Your task to perform on an android device: turn on airplane mode Image 0: 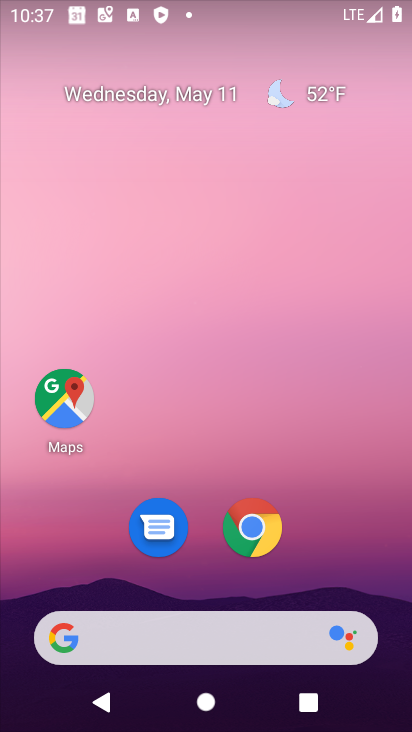
Step 0: drag from (330, 534) to (364, 49)
Your task to perform on an android device: turn on airplane mode Image 1: 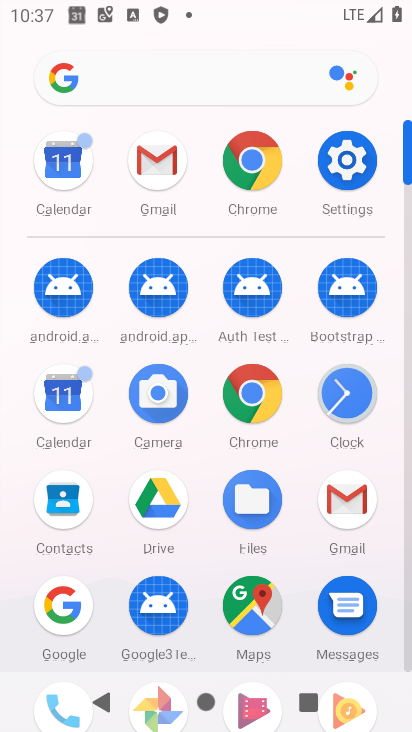
Step 1: click (364, 158)
Your task to perform on an android device: turn on airplane mode Image 2: 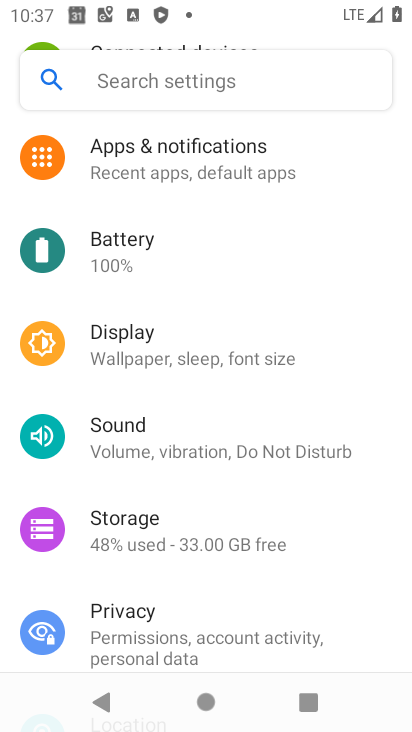
Step 2: drag from (191, 171) to (198, 552)
Your task to perform on an android device: turn on airplane mode Image 3: 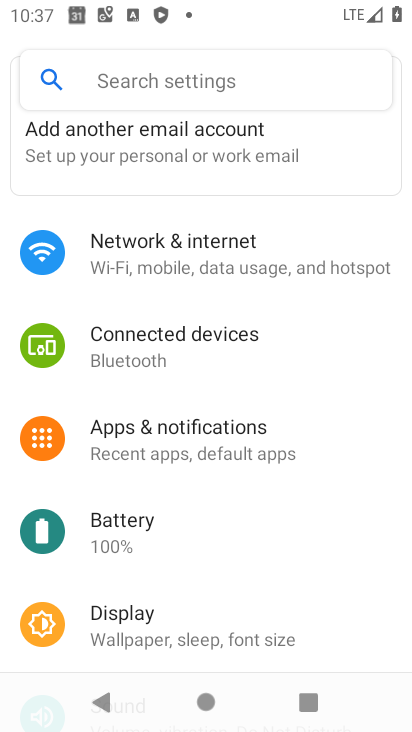
Step 3: click (161, 255)
Your task to perform on an android device: turn on airplane mode Image 4: 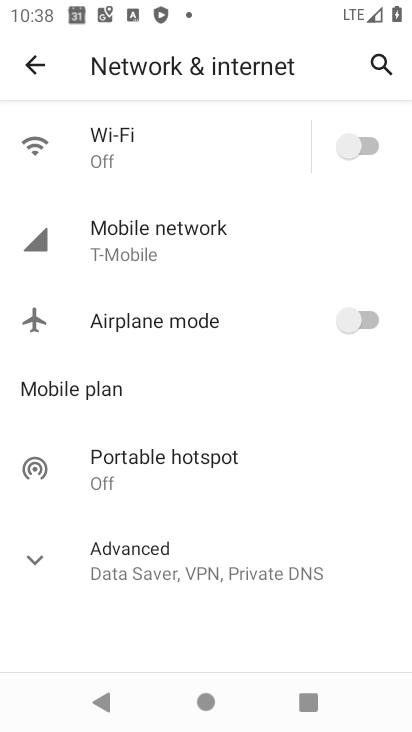
Step 4: click (360, 327)
Your task to perform on an android device: turn on airplane mode Image 5: 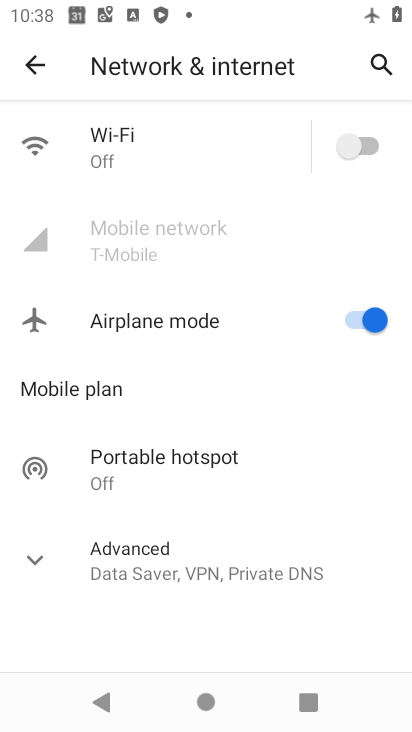
Step 5: task complete